Your task to perform on an android device: turn smart compose on in the gmail app Image 0: 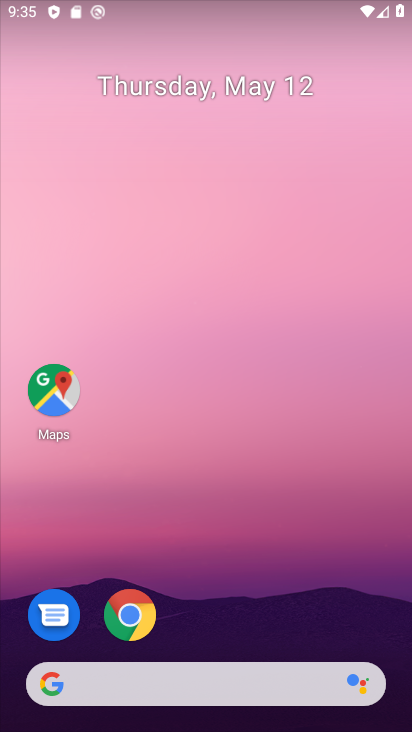
Step 0: drag from (253, 612) to (292, 86)
Your task to perform on an android device: turn smart compose on in the gmail app Image 1: 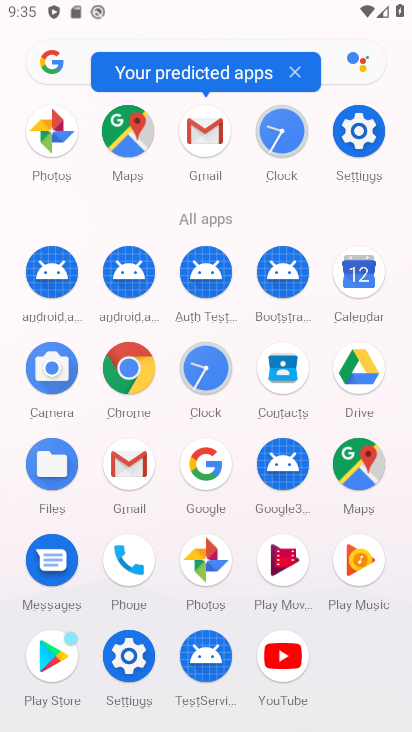
Step 1: click (213, 130)
Your task to perform on an android device: turn smart compose on in the gmail app Image 2: 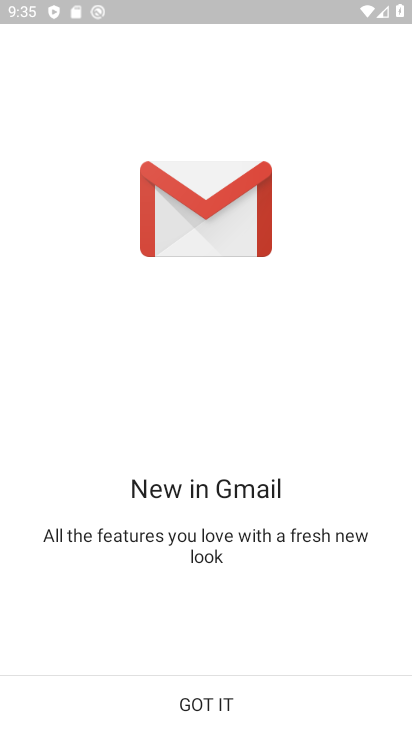
Step 2: click (207, 730)
Your task to perform on an android device: turn smart compose on in the gmail app Image 3: 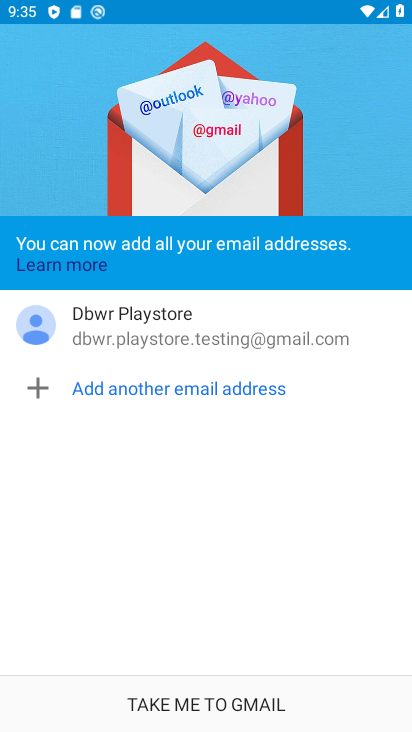
Step 3: click (208, 729)
Your task to perform on an android device: turn smart compose on in the gmail app Image 4: 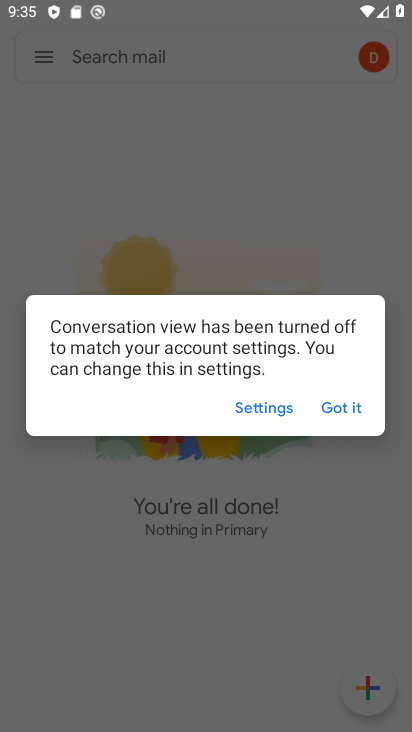
Step 4: click (350, 409)
Your task to perform on an android device: turn smart compose on in the gmail app Image 5: 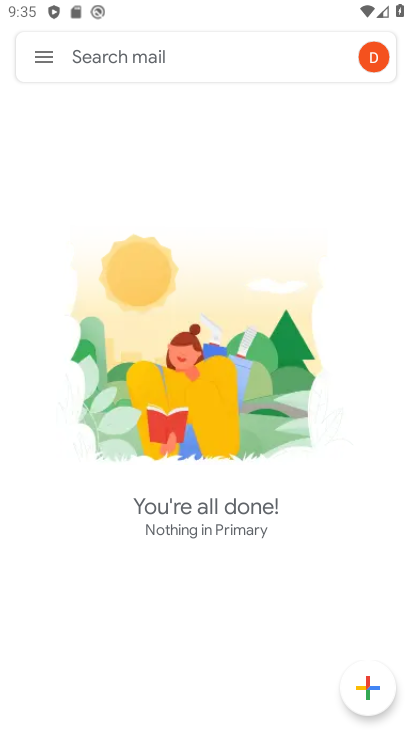
Step 5: click (35, 56)
Your task to perform on an android device: turn smart compose on in the gmail app Image 6: 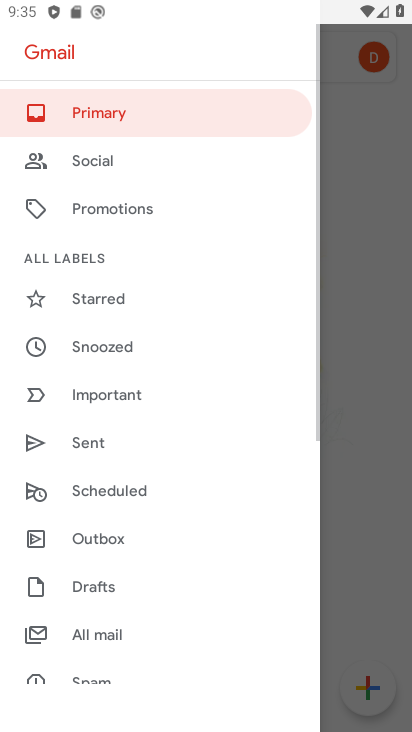
Step 6: drag from (149, 618) to (218, 168)
Your task to perform on an android device: turn smart compose on in the gmail app Image 7: 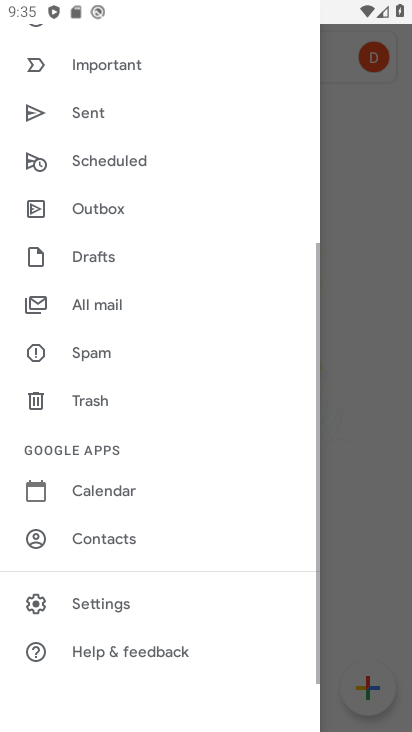
Step 7: click (131, 598)
Your task to perform on an android device: turn smart compose on in the gmail app Image 8: 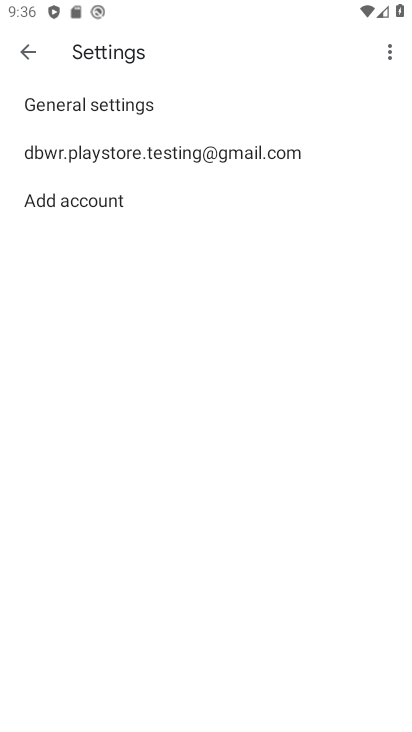
Step 8: click (183, 164)
Your task to perform on an android device: turn smart compose on in the gmail app Image 9: 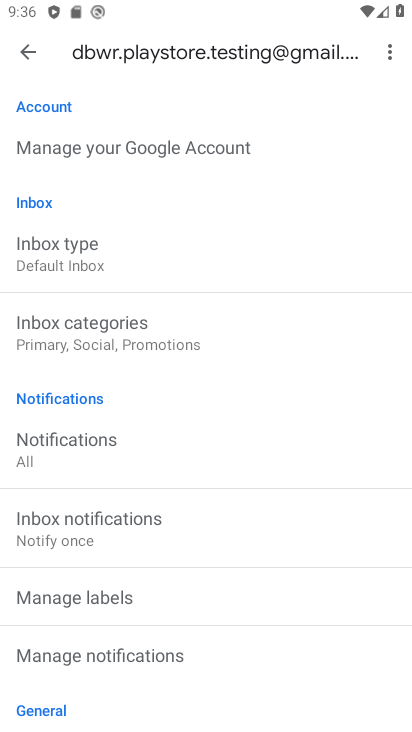
Step 9: task complete